Your task to perform on an android device: Open Chrome and go to settings Image 0: 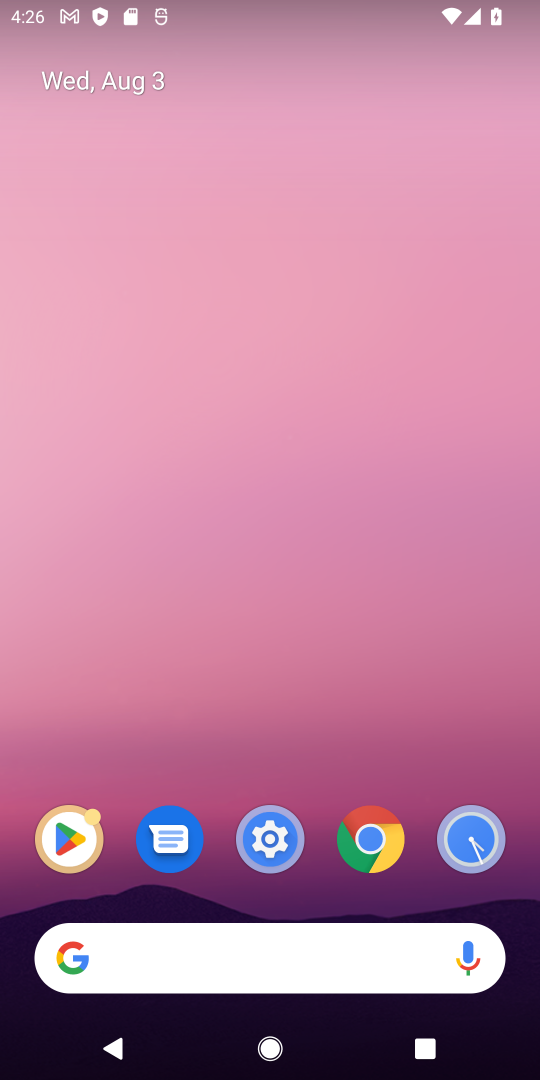
Step 0: click (368, 847)
Your task to perform on an android device: Open Chrome and go to settings Image 1: 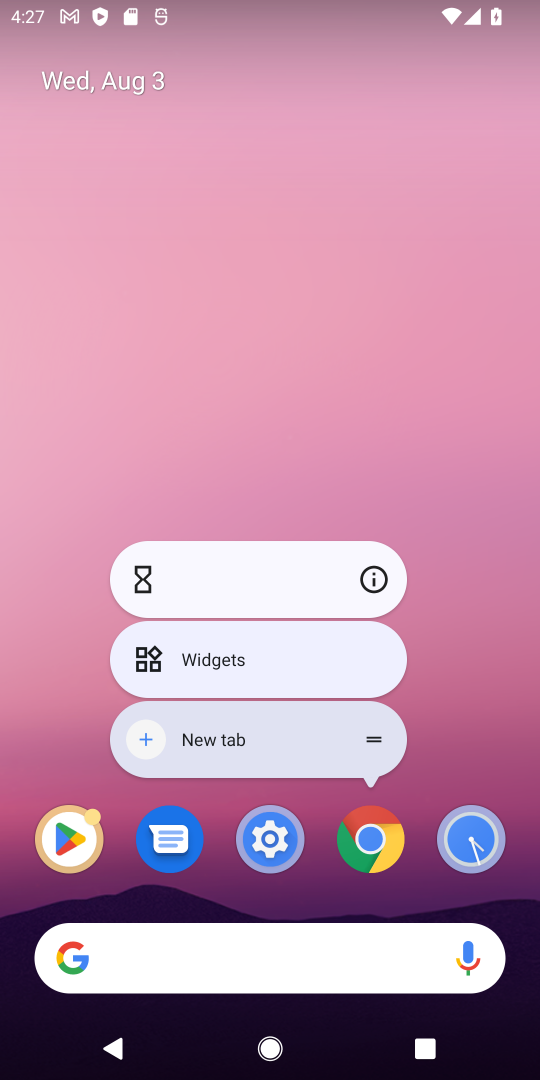
Step 1: click (390, 837)
Your task to perform on an android device: Open Chrome and go to settings Image 2: 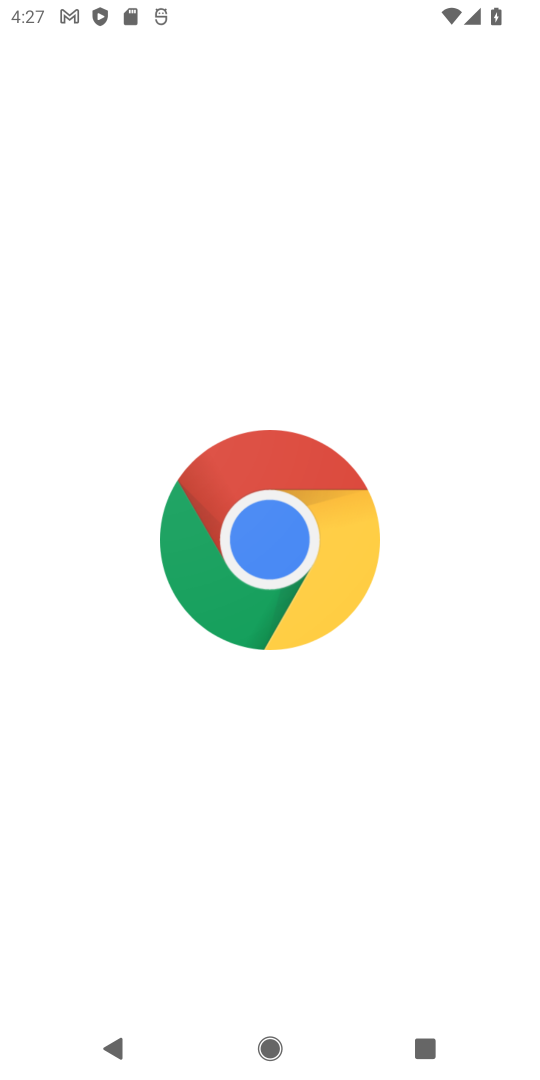
Step 2: click (378, 838)
Your task to perform on an android device: Open Chrome and go to settings Image 3: 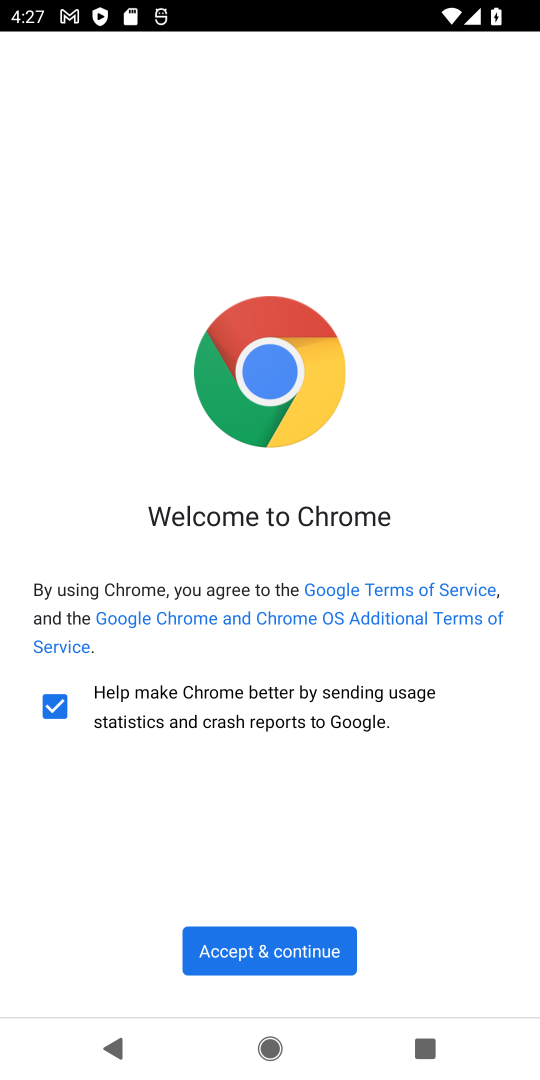
Step 3: click (264, 976)
Your task to perform on an android device: Open Chrome and go to settings Image 4: 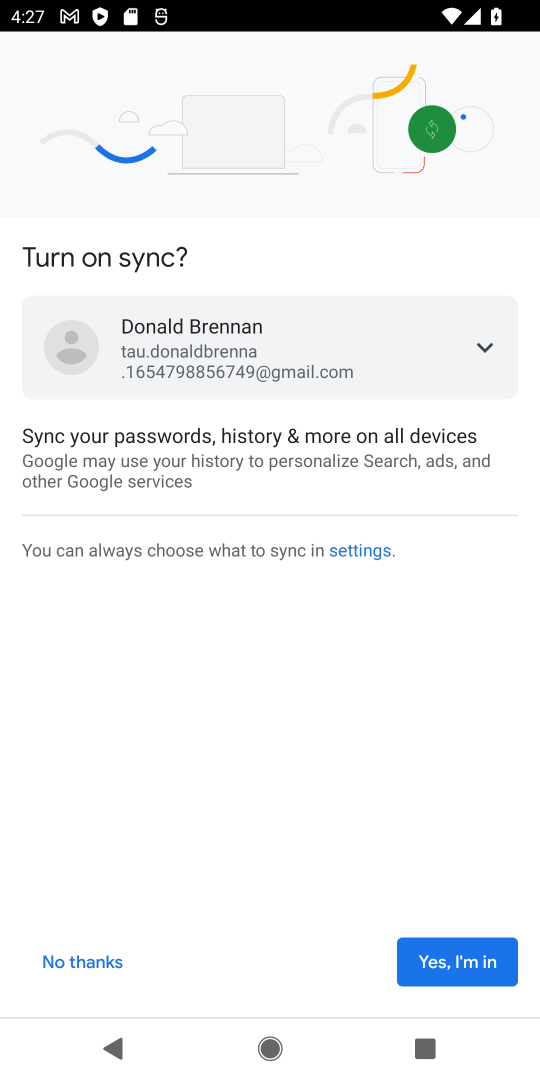
Step 4: click (451, 962)
Your task to perform on an android device: Open Chrome and go to settings Image 5: 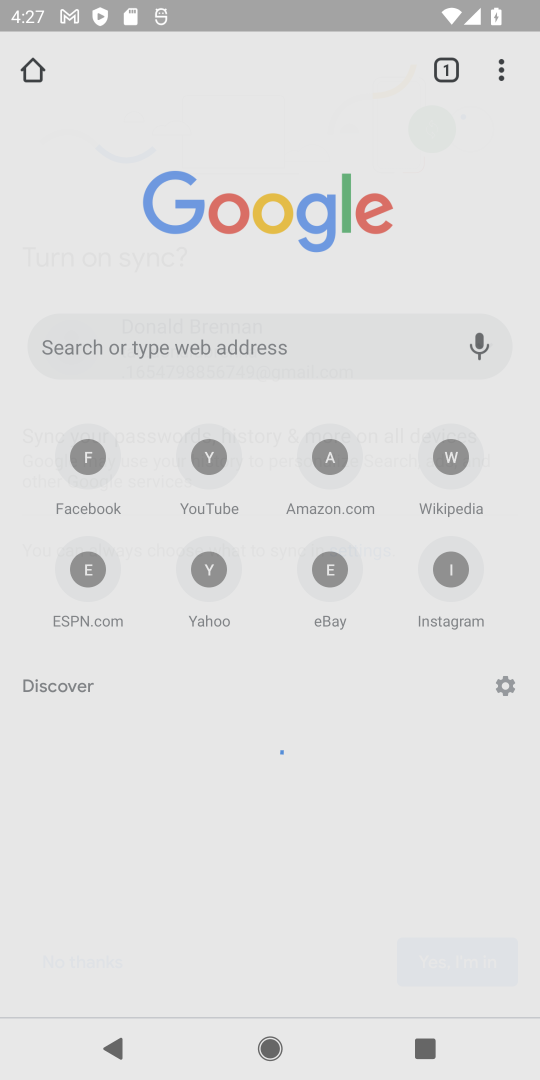
Step 5: click (458, 961)
Your task to perform on an android device: Open Chrome and go to settings Image 6: 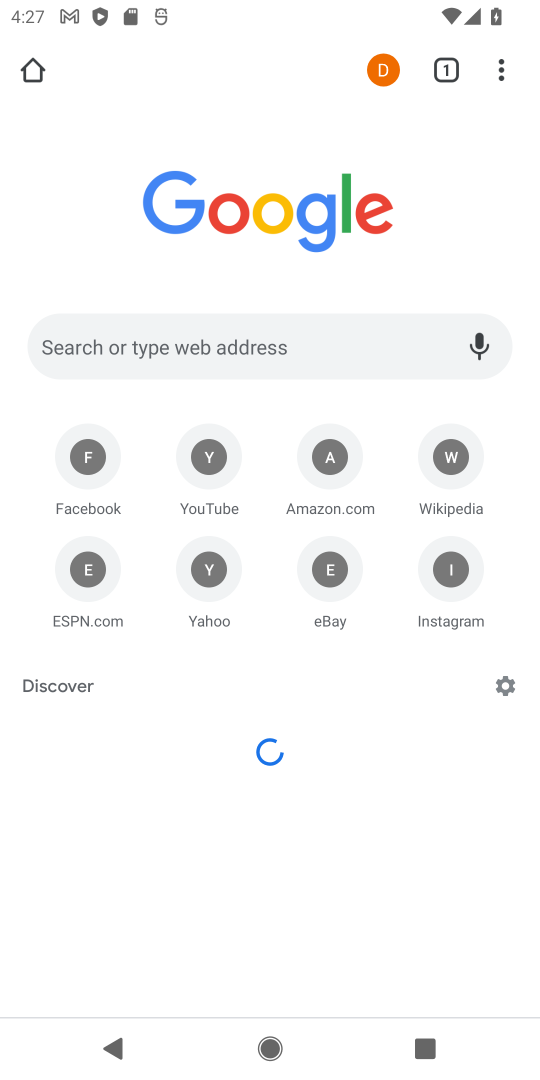
Step 6: task complete